Your task to perform on an android device: Open eBay Image 0: 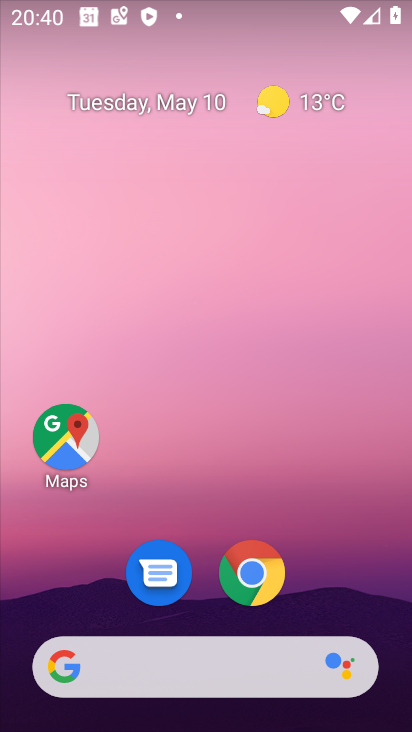
Step 0: click (252, 571)
Your task to perform on an android device: Open eBay Image 1: 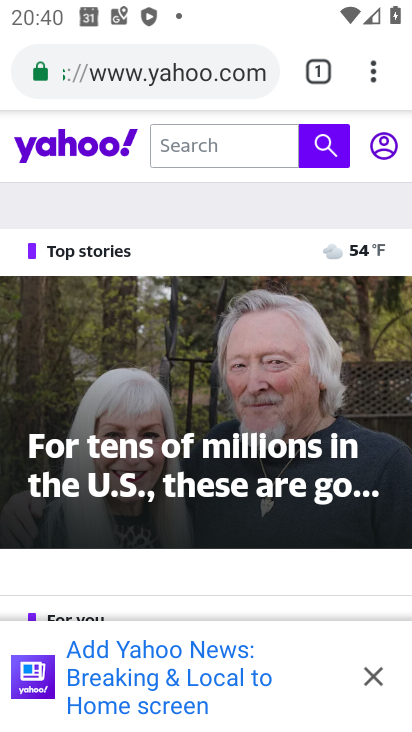
Step 1: click (134, 61)
Your task to perform on an android device: Open eBay Image 2: 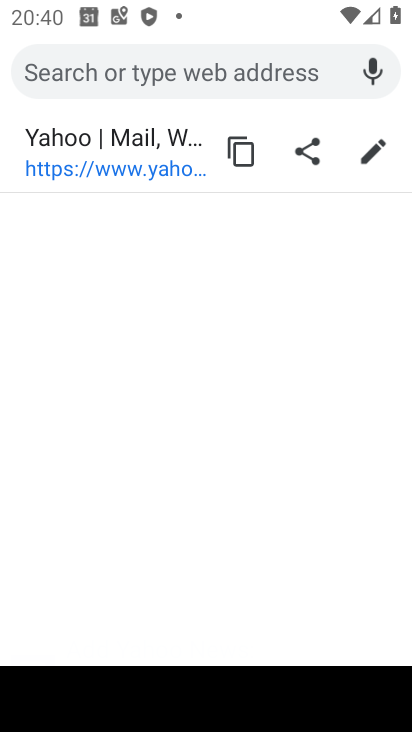
Step 2: type "ebay"
Your task to perform on an android device: Open eBay Image 3: 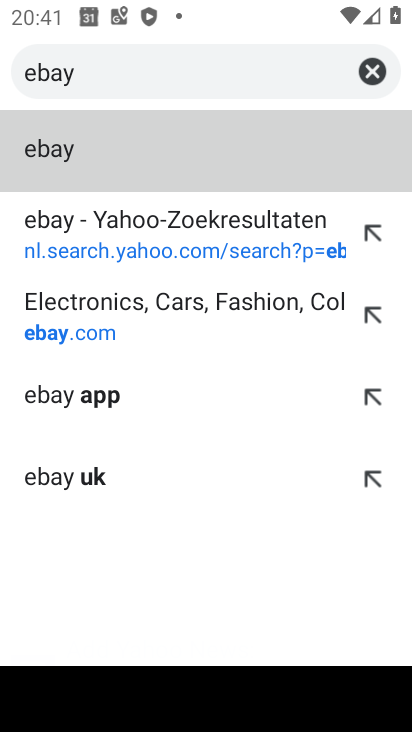
Step 3: click (79, 157)
Your task to perform on an android device: Open eBay Image 4: 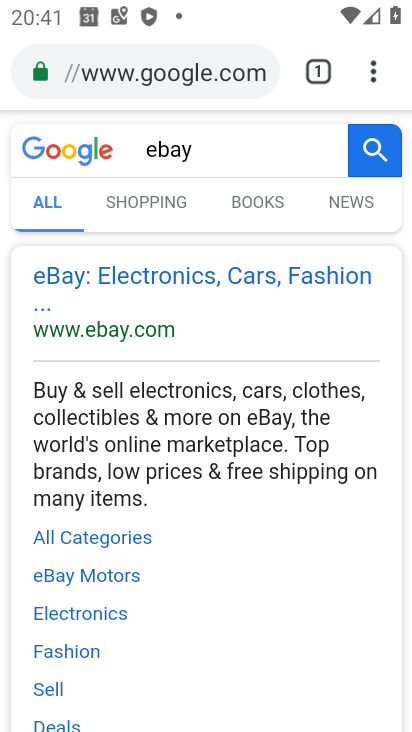
Step 4: click (78, 323)
Your task to perform on an android device: Open eBay Image 5: 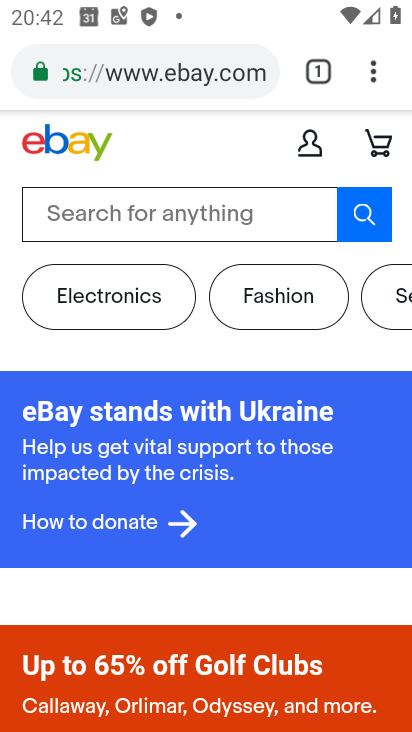
Step 5: task complete